Your task to perform on an android device: turn vacation reply on in the gmail app Image 0: 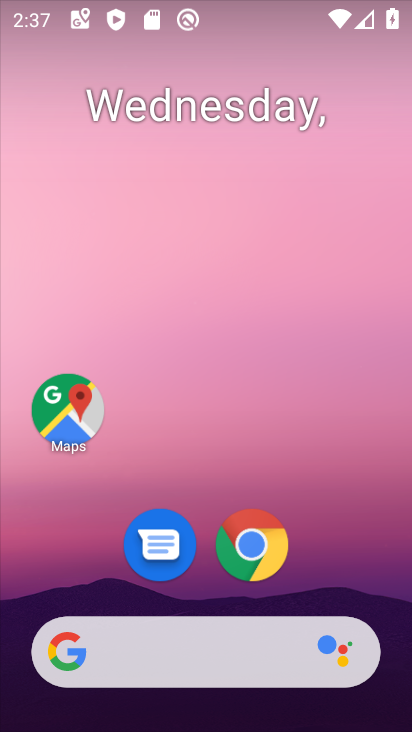
Step 0: press home button
Your task to perform on an android device: turn vacation reply on in the gmail app Image 1: 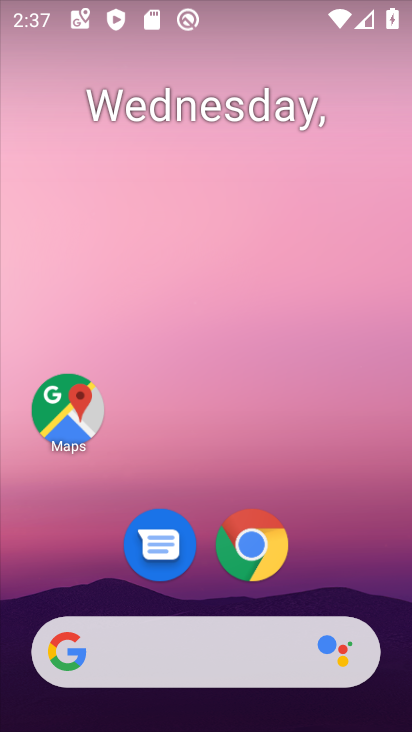
Step 1: drag from (251, 479) to (335, 173)
Your task to perform on an android device: turn vacation reply on in the gmail app Image 2: 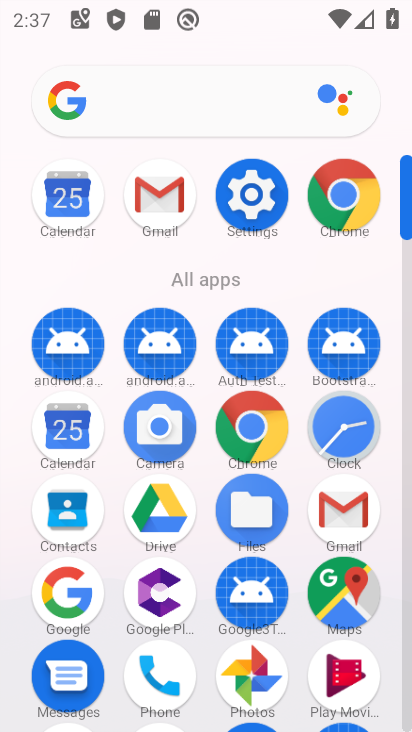
Step 2: click (161, 208)
Your task to perform on an android device: turn vacation reply on in the gmail app Image 3: 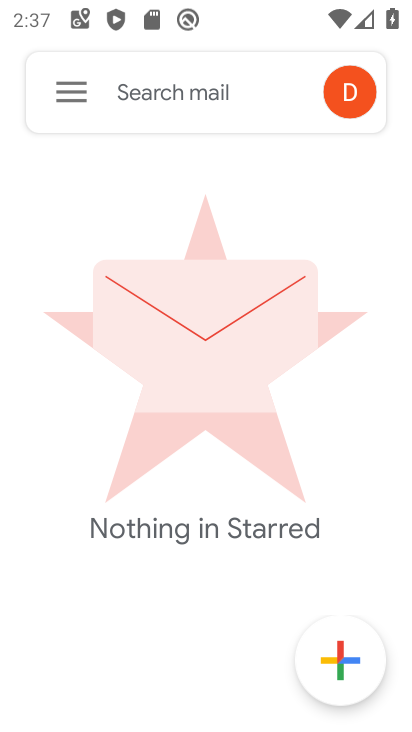
Step 3: click (72, 84)
Your task to perform on an android device: turn vacation reply on in the gmail app Image 4: 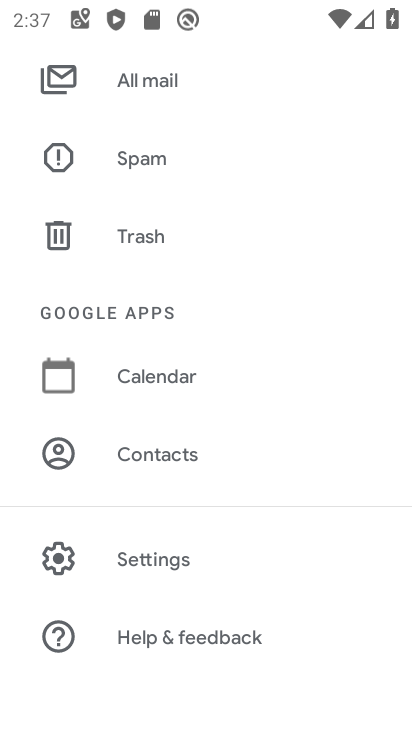
Step 4: click (156, 550)
Your task to perform on an android device: turn vacation reply on in the gmail app Image 5: 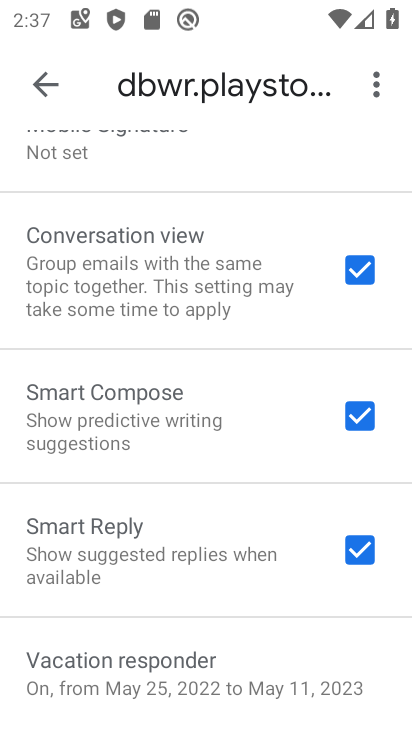
Step 5: click (161, 655)
Your task to perform on an android device: turn vacation reply on in the gmail app Image 6: 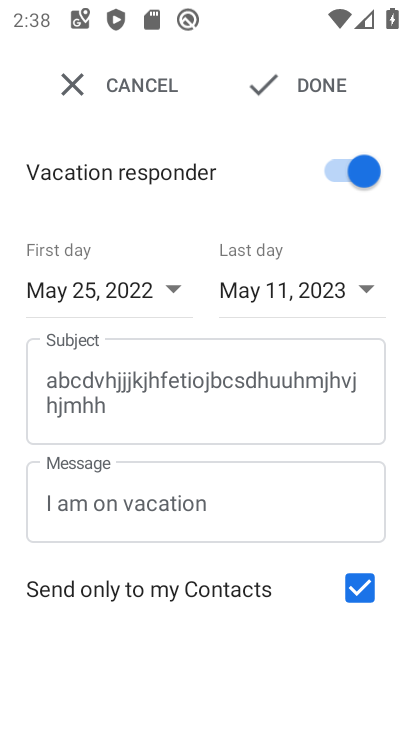
Step 6: task complete